Your task to perform on an android device: Go to battery settings Image 0: 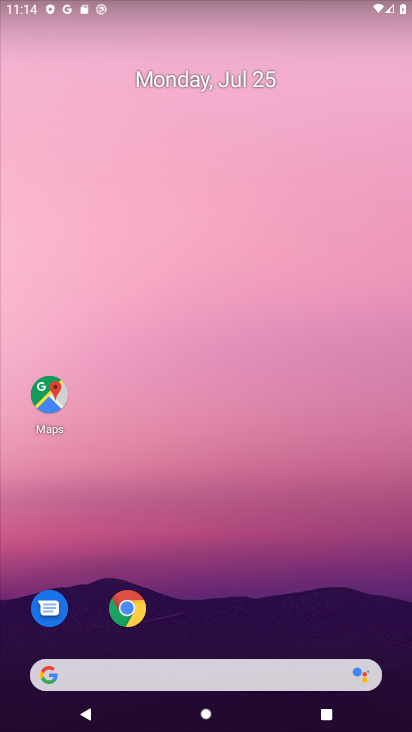
Step 0: drag from (200, 616) to (140, 127)
Your task to perform on an android device: Go to battery settings Image 1: 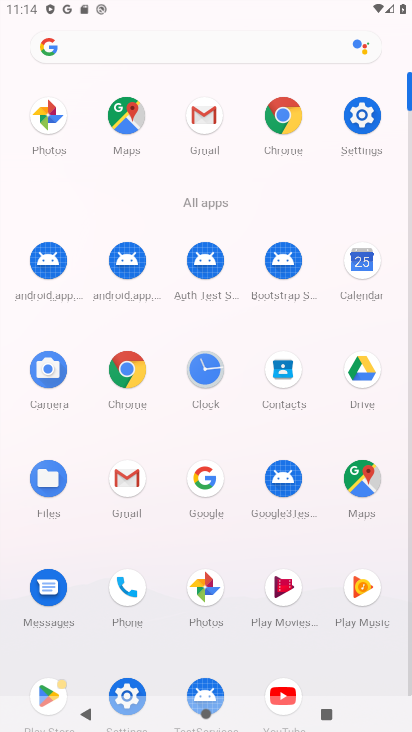
Step 1: click (370, 101)
Your task to perform on an android device: Go to battery settings Image 2: 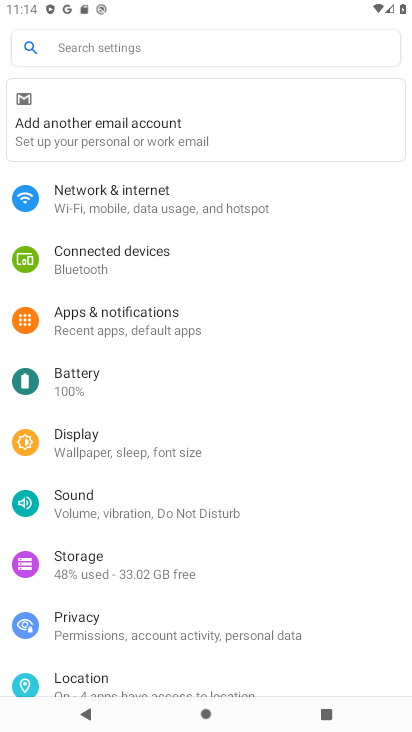
Step 2: click (84, 378)
Your task to perform on an android device: Go to battery settings Image 3: 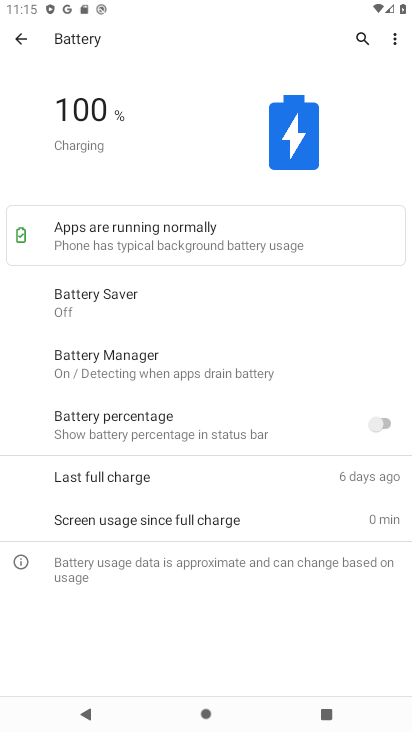
Step 3: click (401, 29)
Your task to perform on an android device: Go to battery settings Image 4: 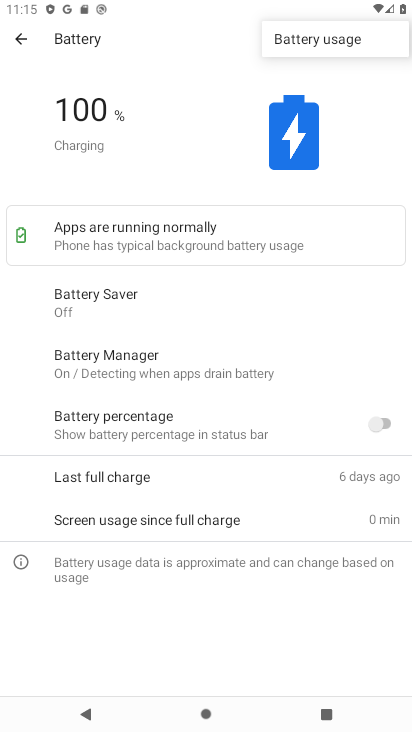
Step 4: task complete